Your task to perform on an android device: Is it going to rain tomorrow? Image 0: 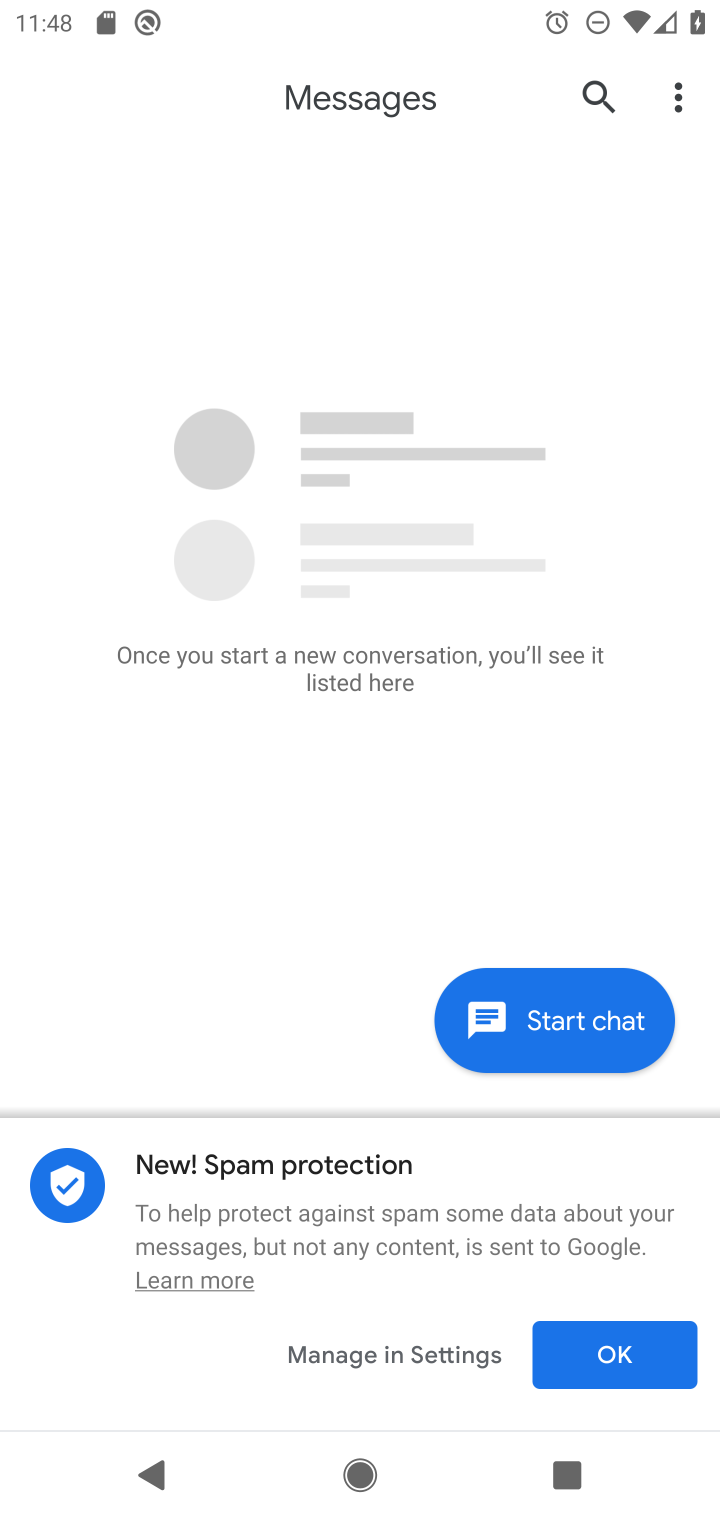
Step 0: press home button
Your task to perform on an android device: Is it going to rain tomorrow? Image 1: 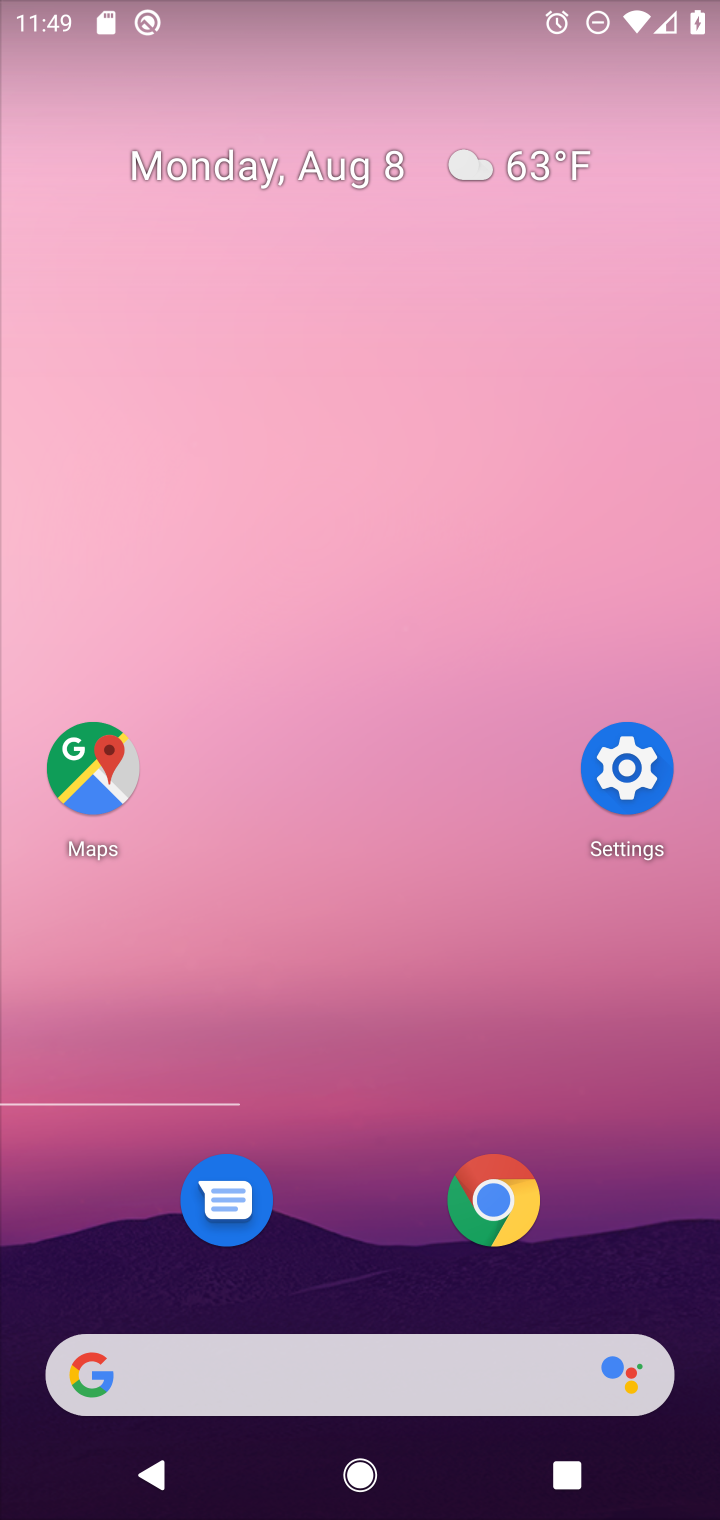
Step 1: click (262, 1382)
Your task to perform on an android device: Is it going to rain tomorrow? Image 2: 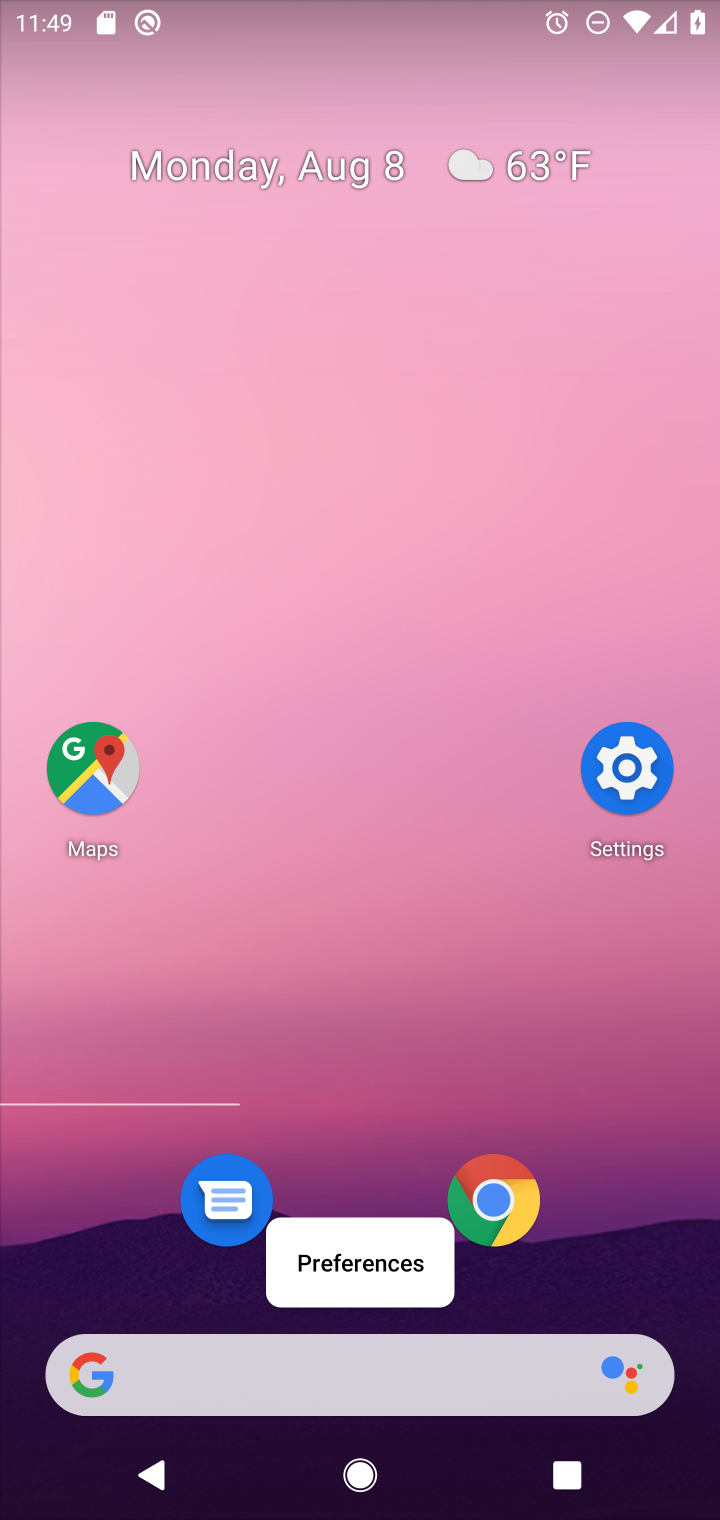
Step 2: click (283, 1359)
Your task to perform on an android device: Is it going to rain tomorrow? Image 3: 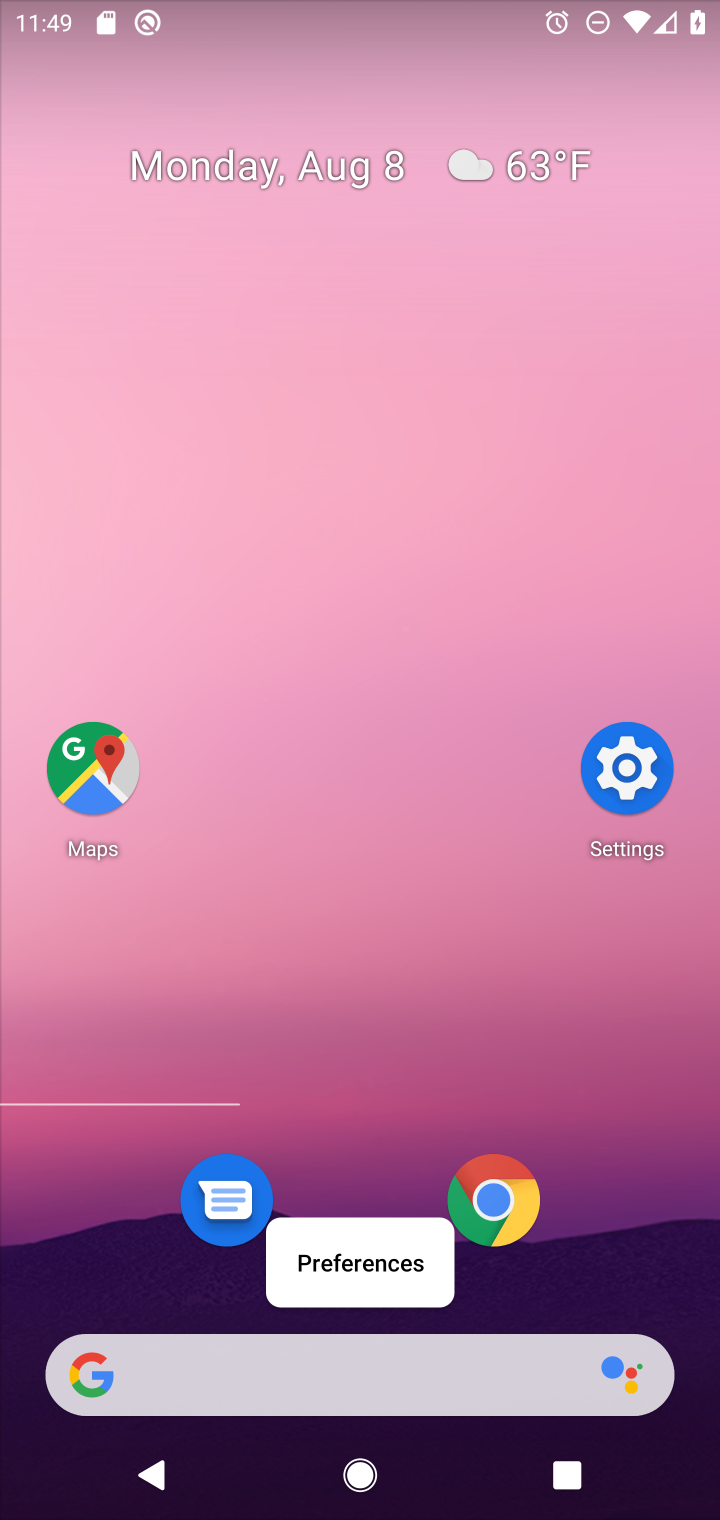
Step 3: click (330, 1387)
Your task to perform on an android device: Is it going to rain tomorrow? Image 4: 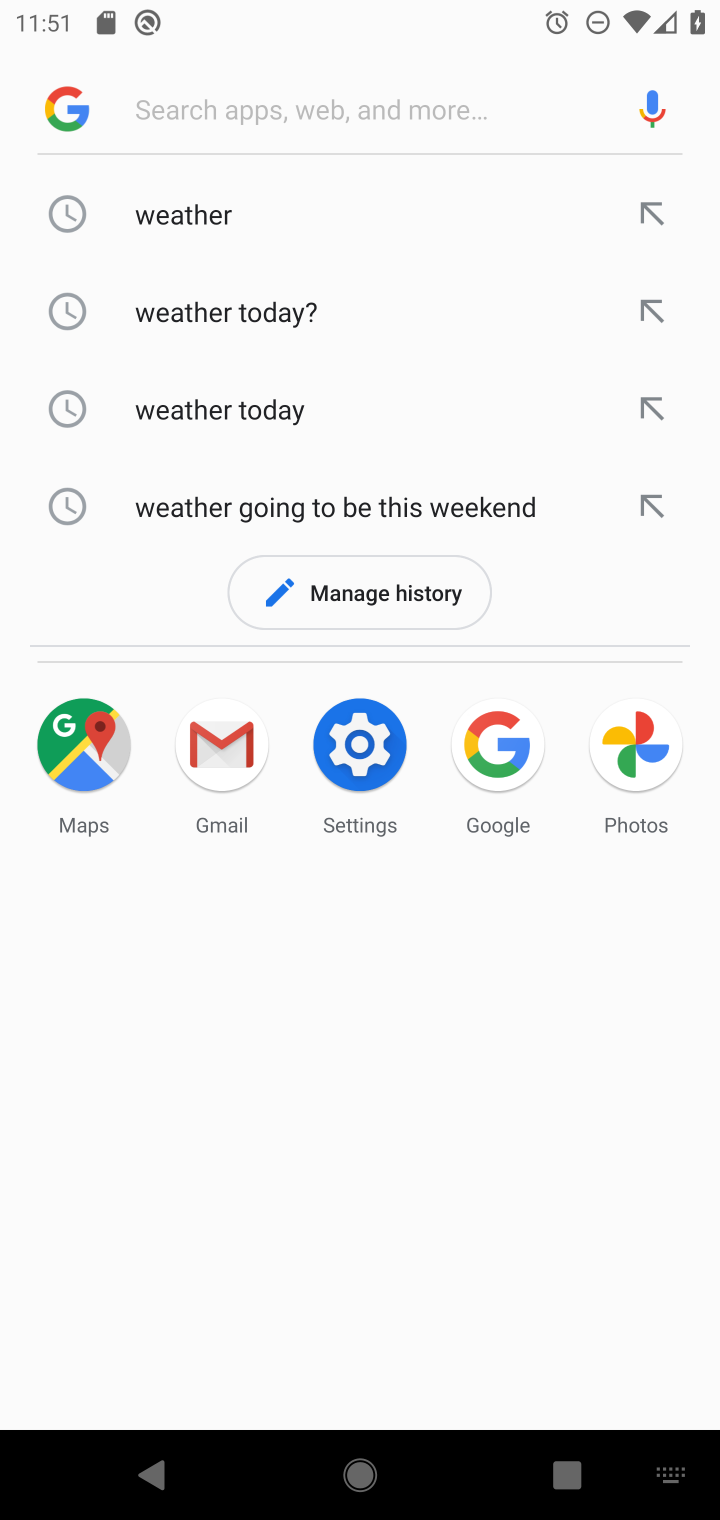
Step 4: click (207, 217)
Your task to perform on an android device: Is it going to rain tomorrow? Image 5: 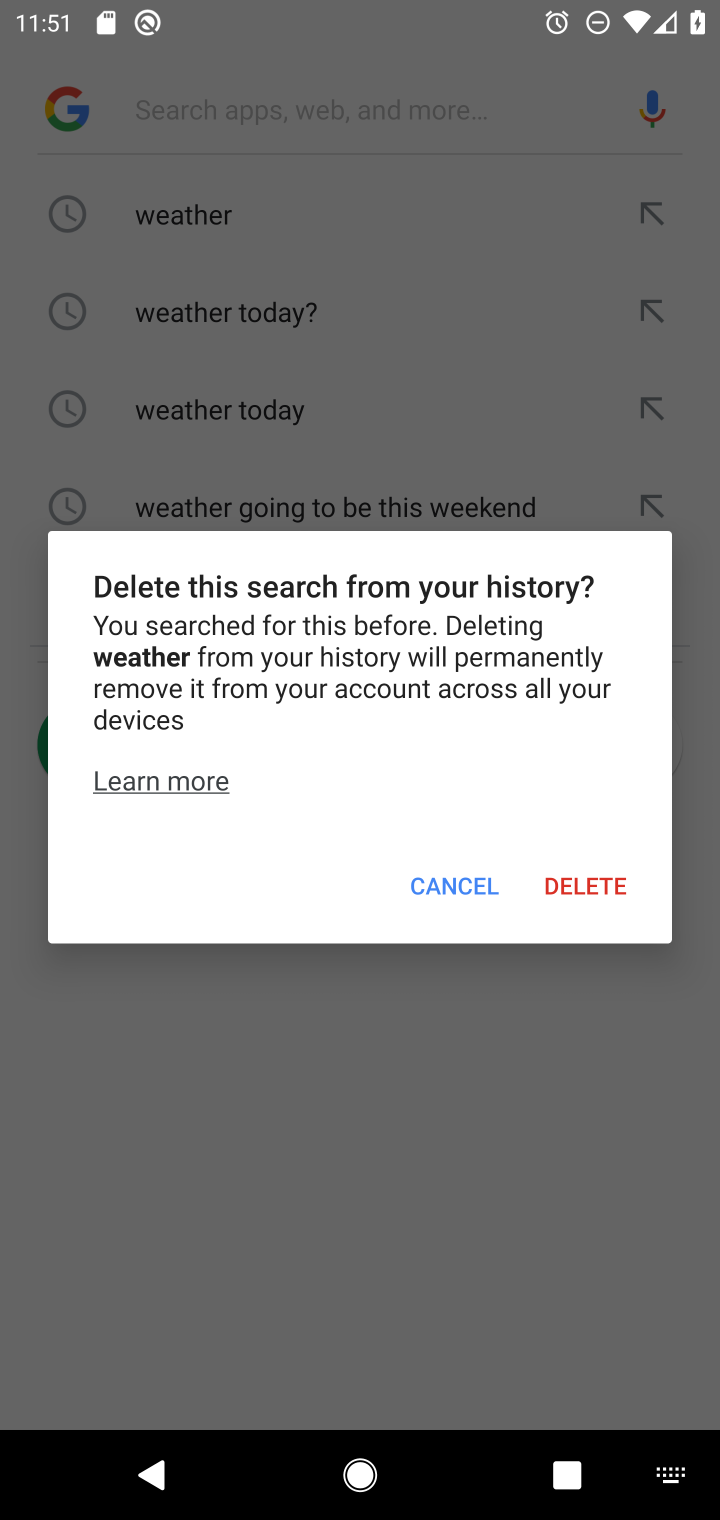
Step 5: click (481, 874)
Your task to perform on an android device: Is it going to rain tomorrow? Image 6: 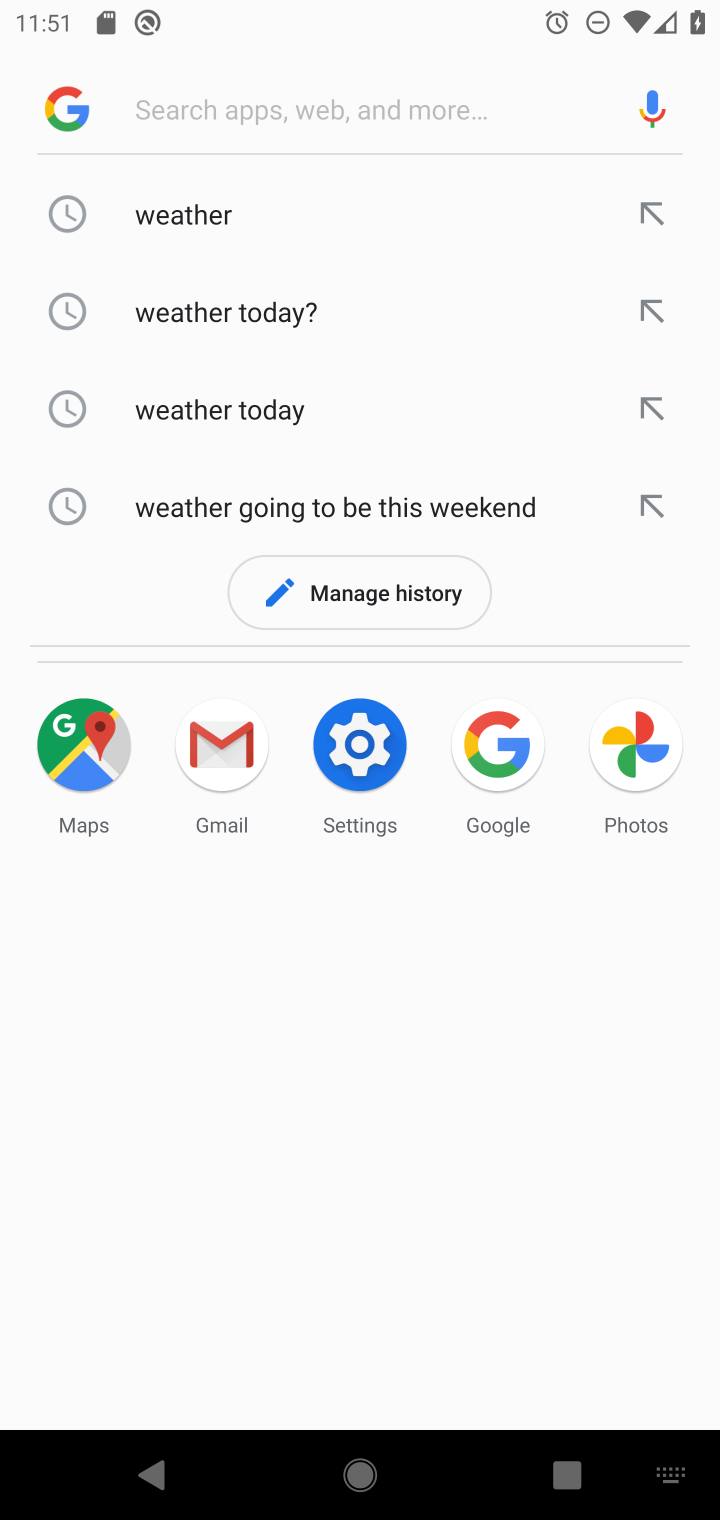
Step 6: click (652, 214)
Your task to perform on an android device: Is it going to rain tomorrow? Image 7: 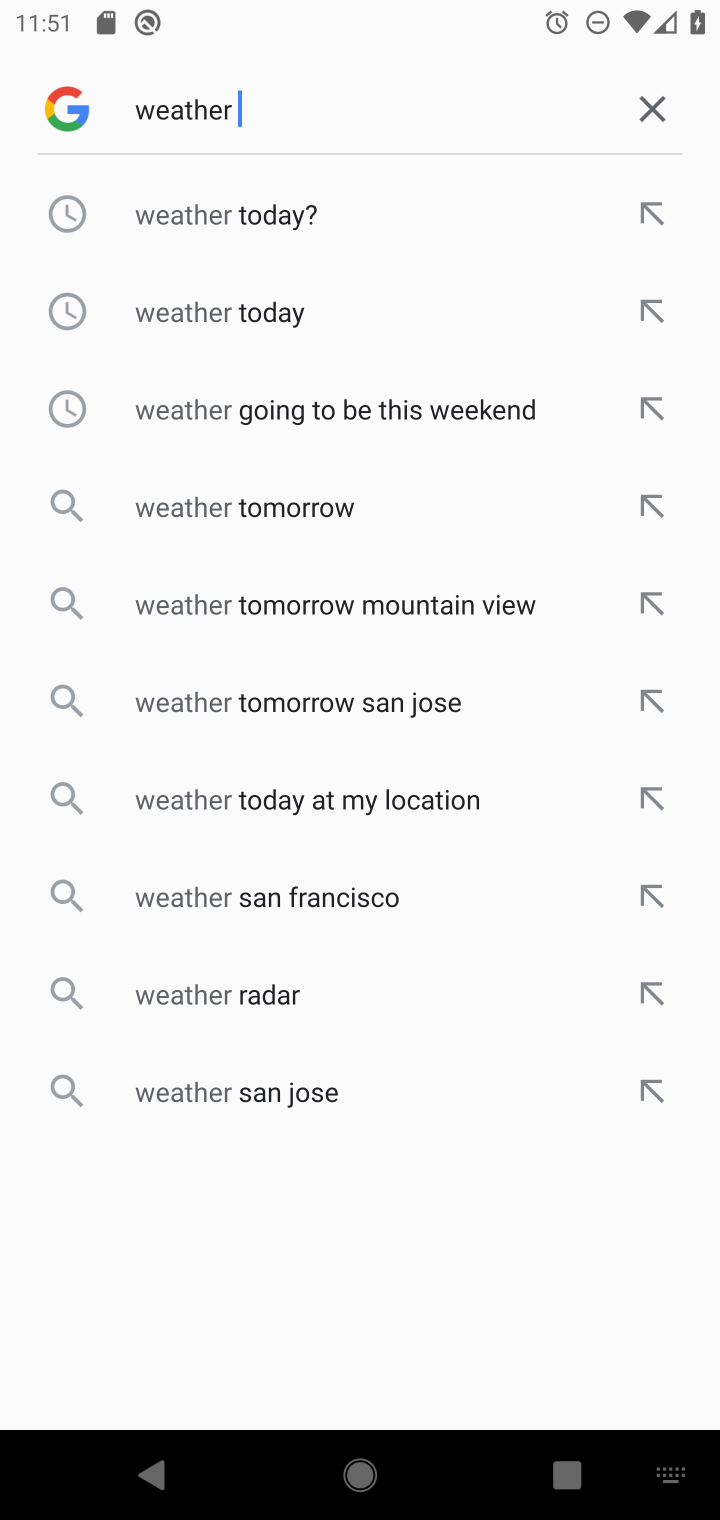
Step 7: click (646, 203)
Your task to perform on an android device: Is it going to rain tomorrow? Image 8: 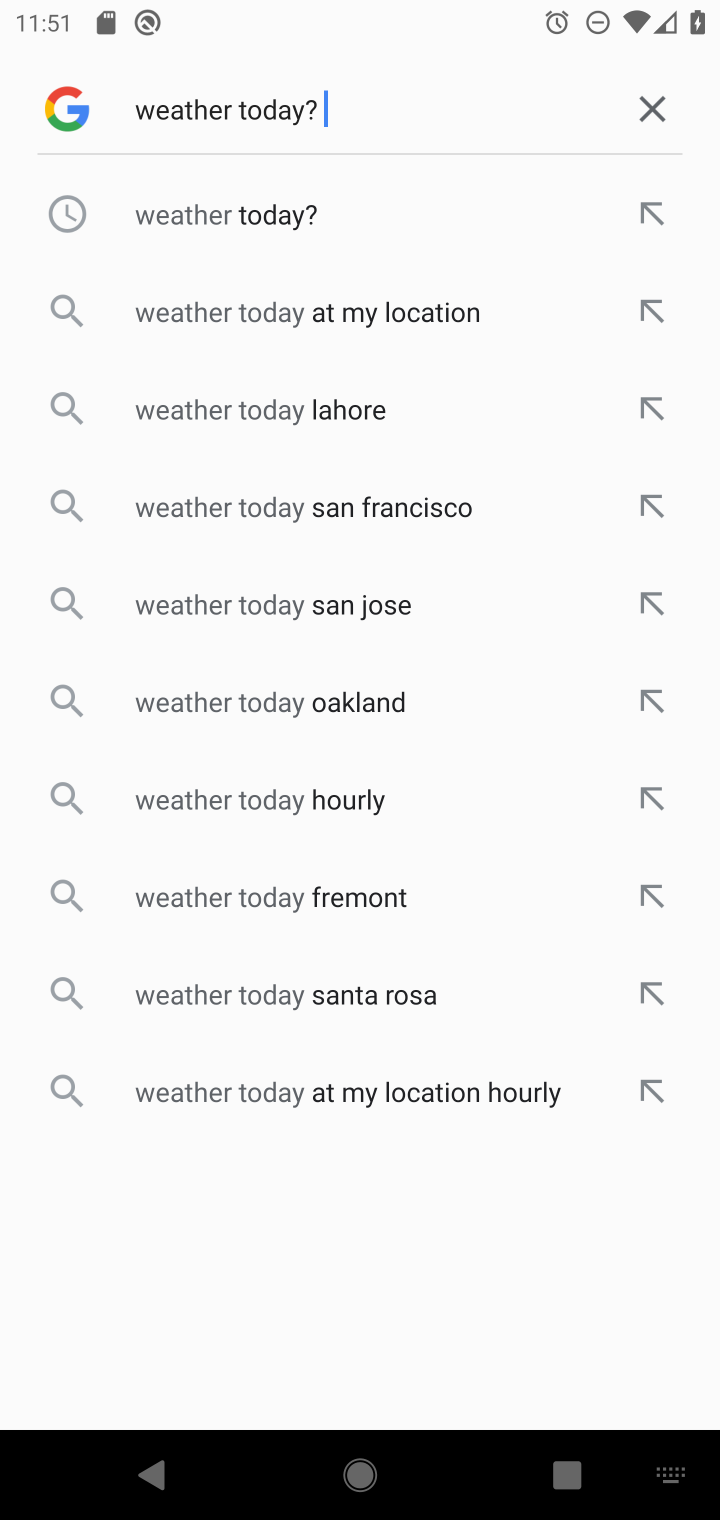
Step 8: click (643, 215)
Your task to perform on an android device: Is it going to rain tomorrow? Image 9: 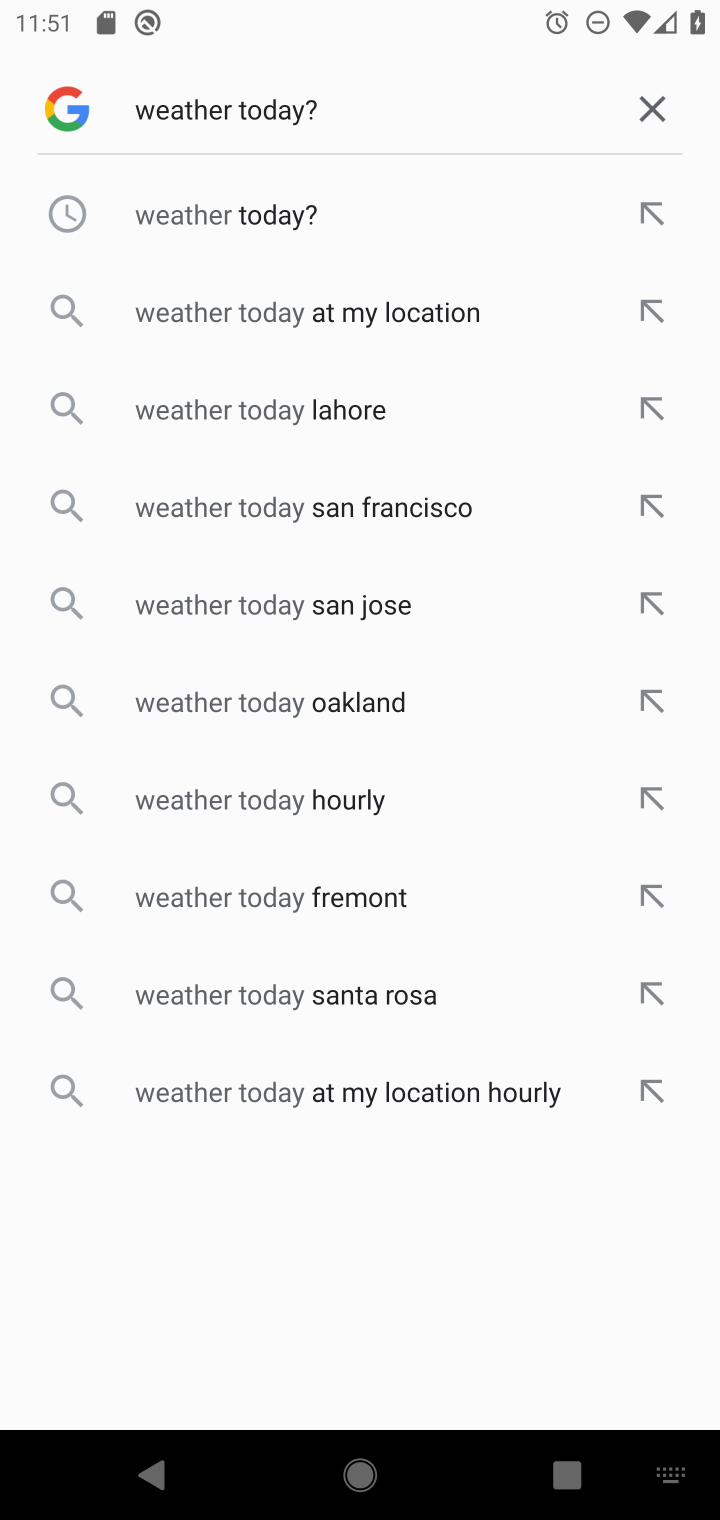
Step 9: click (648, 211)
Your task to perform on an android device: Is it going to rain tomorrow? Image 10: 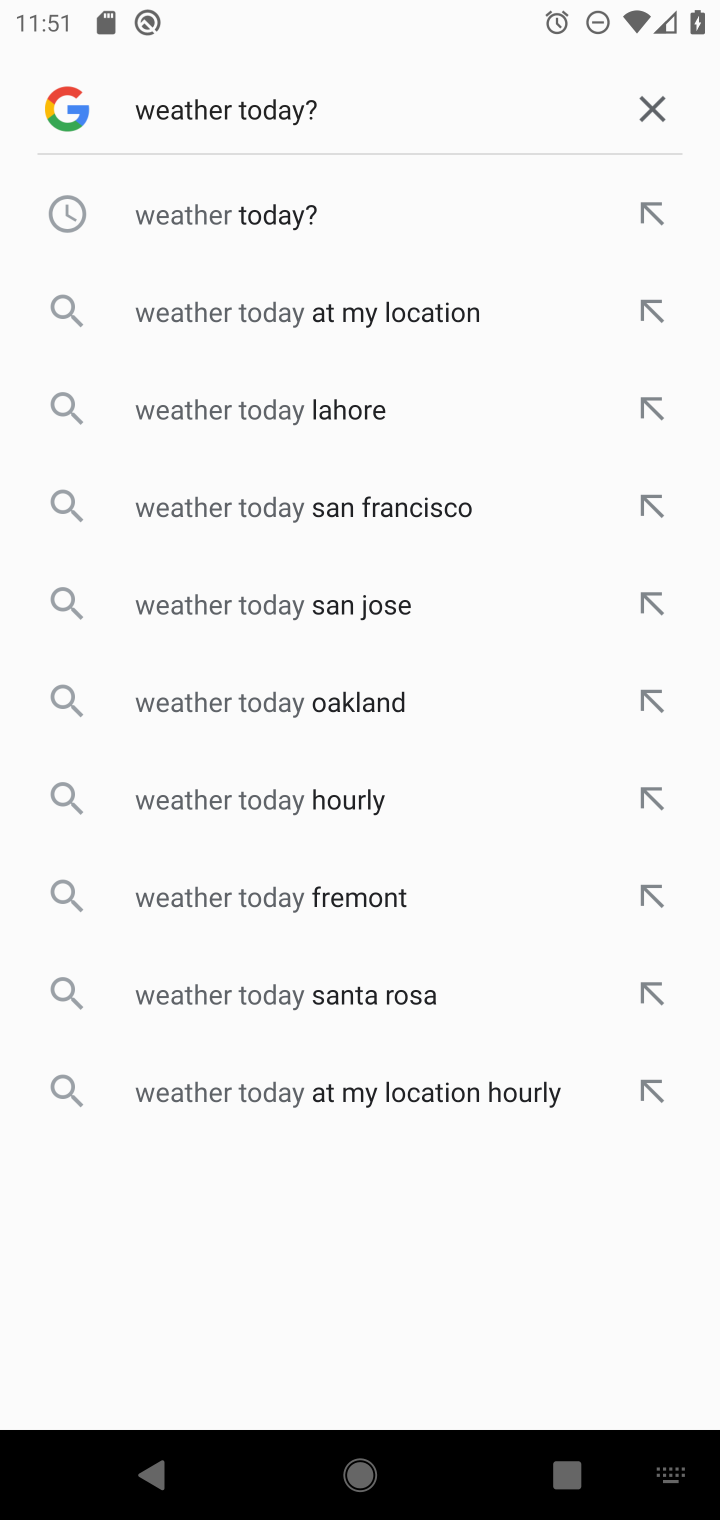
Step 10: click (274, 219)
Your task to perform on an android device: Is it going to rain tomorrow? Image 11: 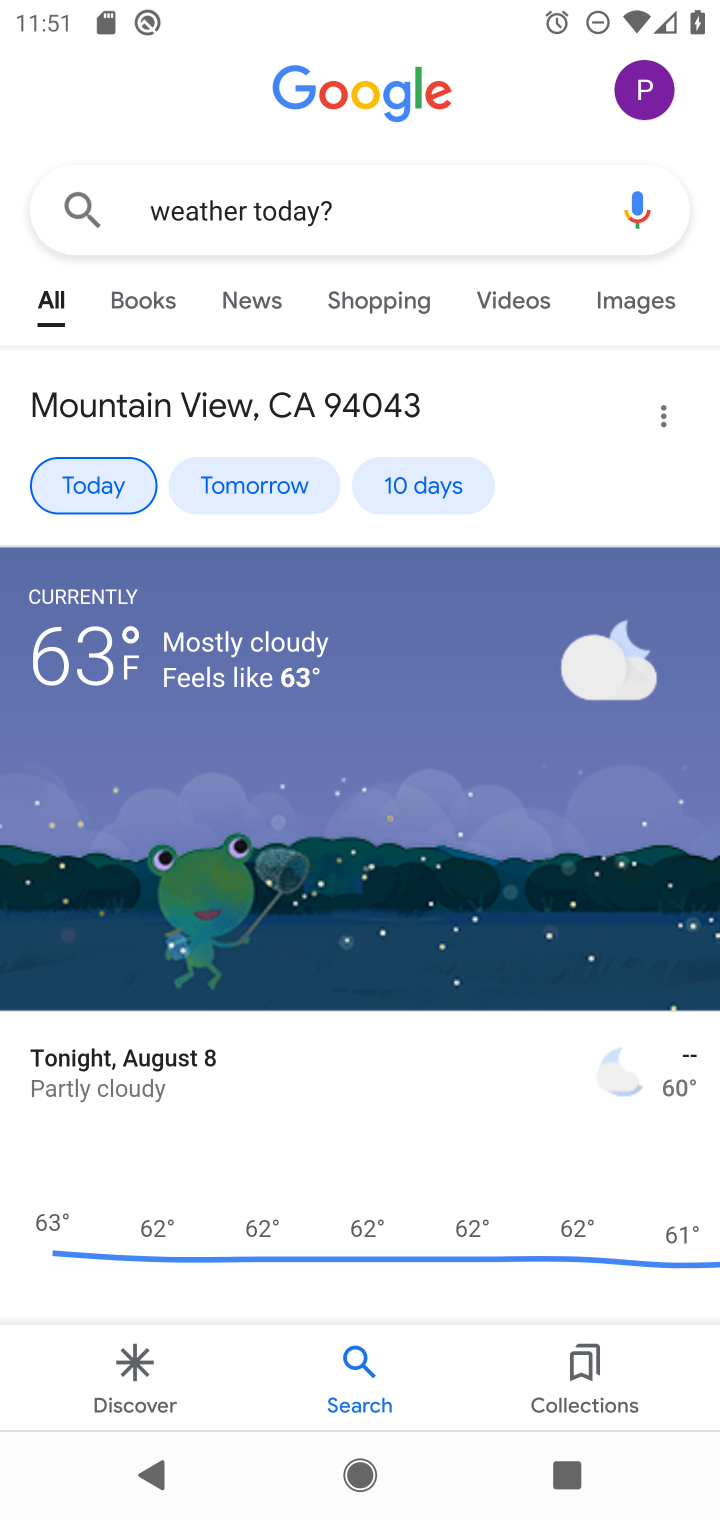
Step 11: click (269, 498)
Your task to perform on an android device: Is it going to rain tomorrow? Image 12: 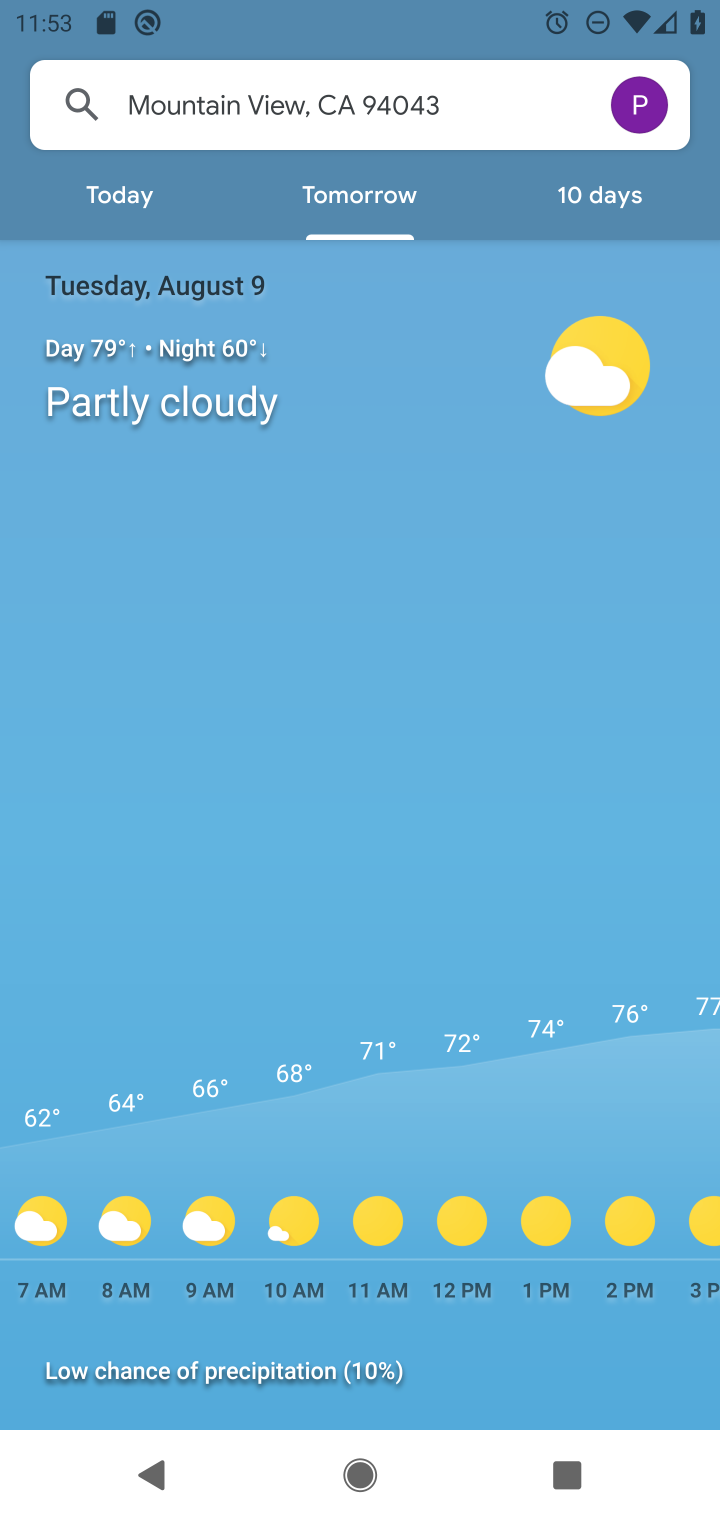
Step 12: task complete